Your task to perform on an android device: clear all cookies in the chrome app Image 0: 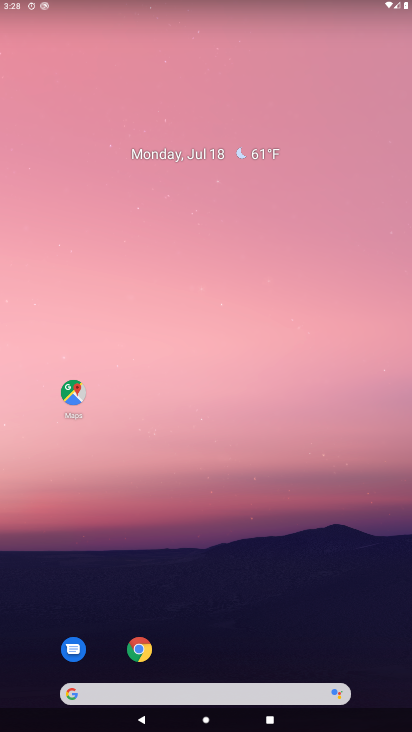
Step 0: click (148, 653)
Your task to perform on an android device: clear all cookies in the chrome app Image 1: 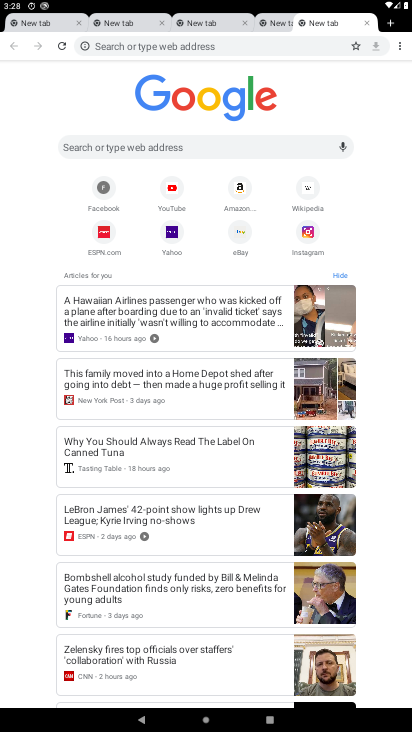
Step 1: click (394, 44)
Your task to perform on an android device: clear all cookies in the chrome app Image 2: 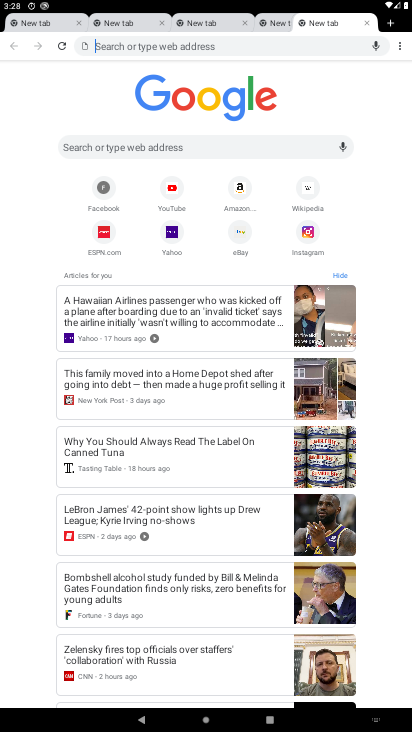
Step 2: click (401, 44)
Your task to perform on an android device: clear all cookies in the chrome app Image 3: 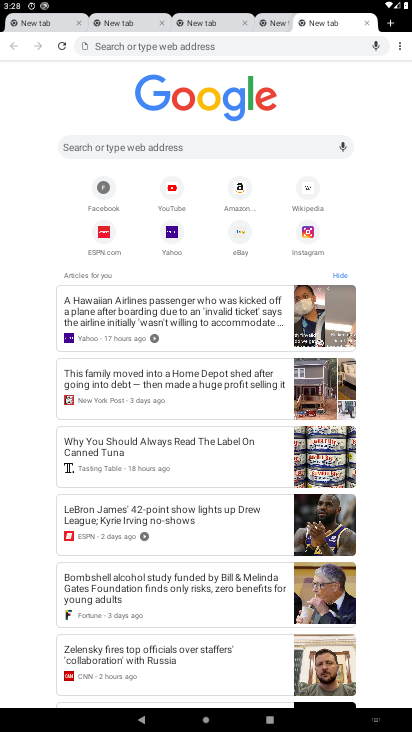
Step 3: task complete